Your task to perform on an android device: remove spam from my inbox in the gmail app Image 0: 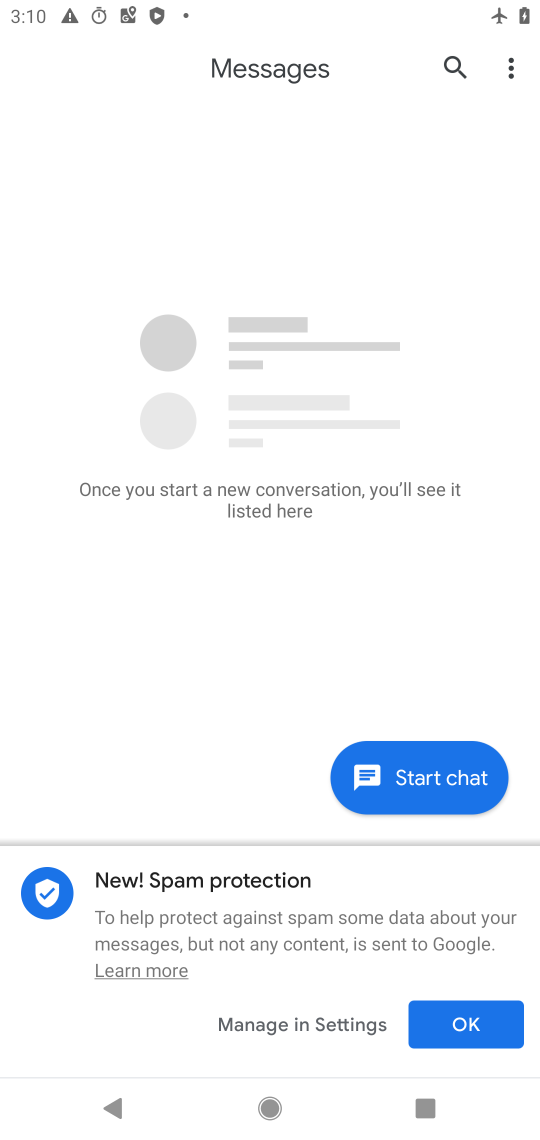
Step 0: press home button
Your task to perform on an android device: remove spam from my inbox in the gmail app Image 1: 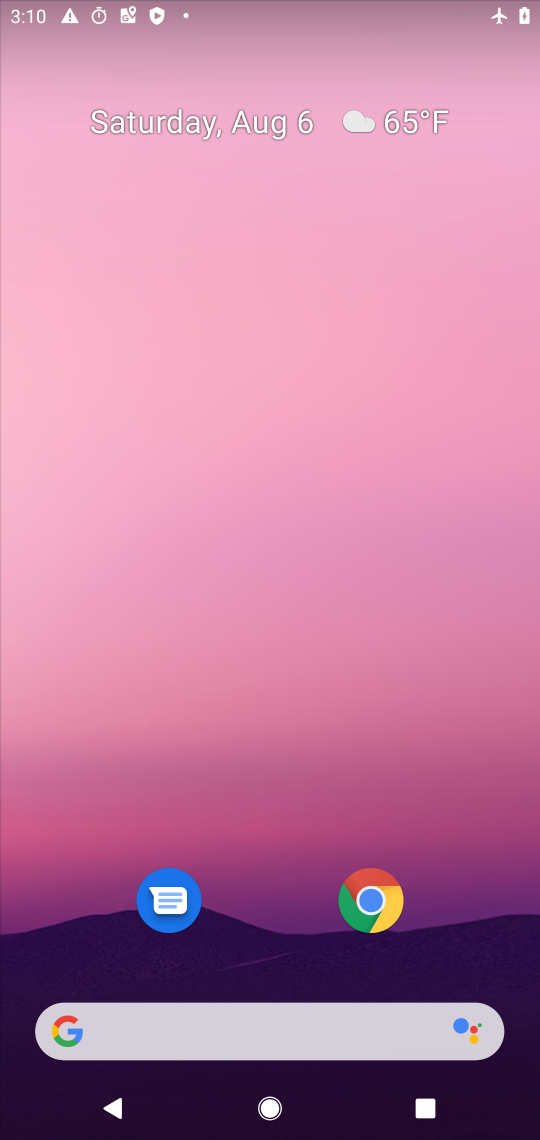
Step 1: drag from (249, 883) to (254, 204)
Your task to perform on an android device: remove spam from my inbox in the gmail app Image 2: 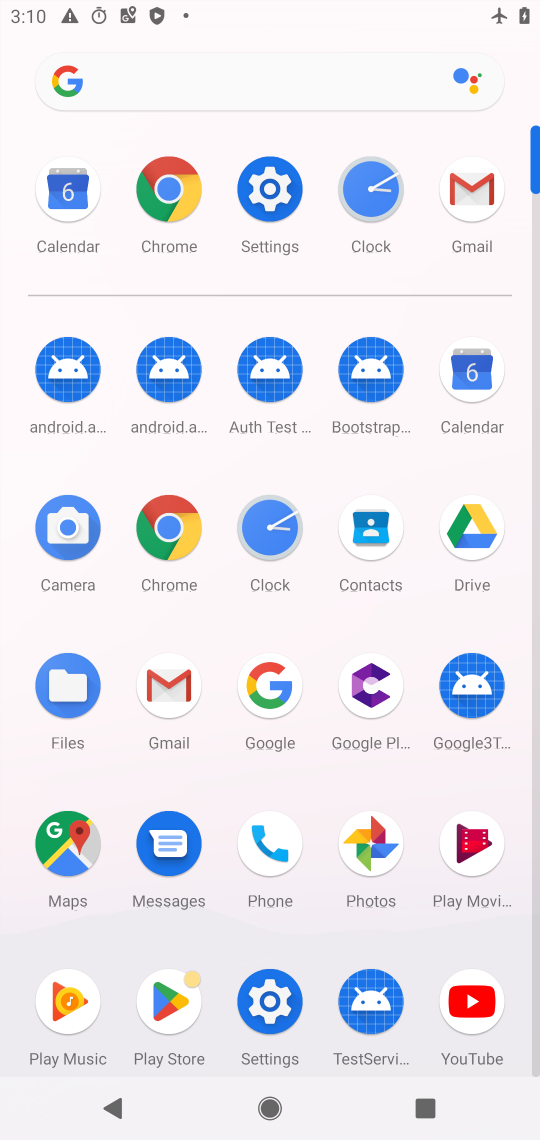
Step 2: click (469, 193)
Your task to perform on an android device: remove spam from my inbox in the gmail app Image 3: 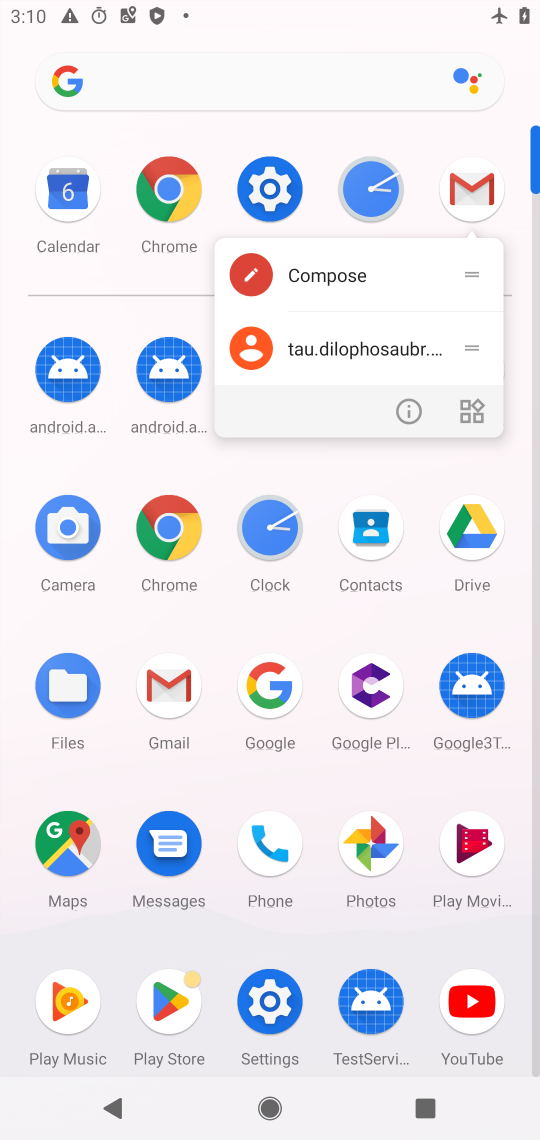
Step 3: click (477, 182)
Your task to perform on an android device: remove spam from my inbox in the gmail app Image 4: 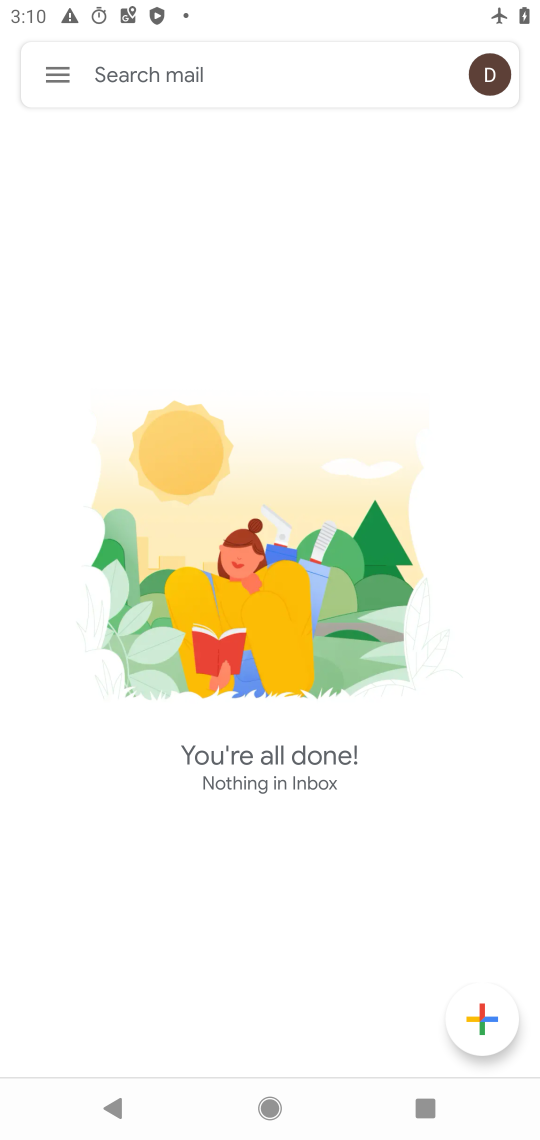
Step 4: task complete